Your task to perform on an android device: Go to settings Image 0: 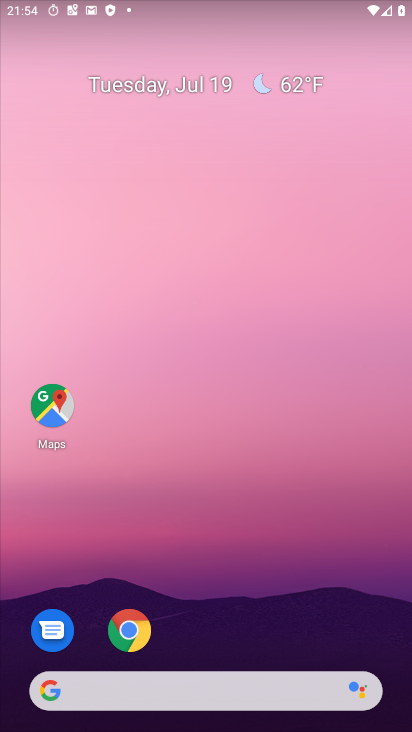
Step 0: drag from (22, 690) to (311, 11)
Your task to perform on an android device: Go to settings Image 1: 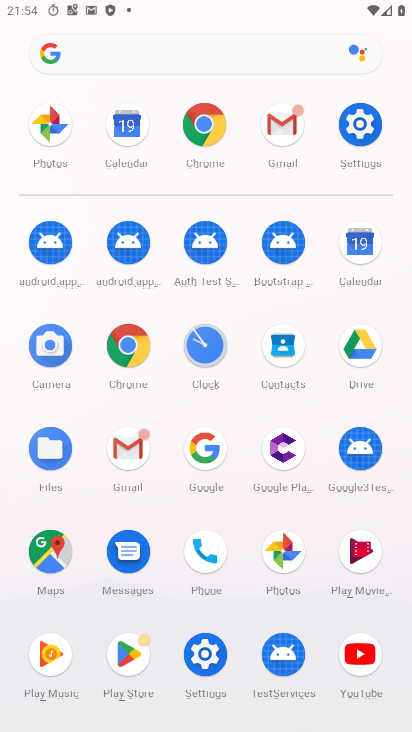
Step 1: click (207, 656)
Your task to perform on an android device: Go to settings Image 2: 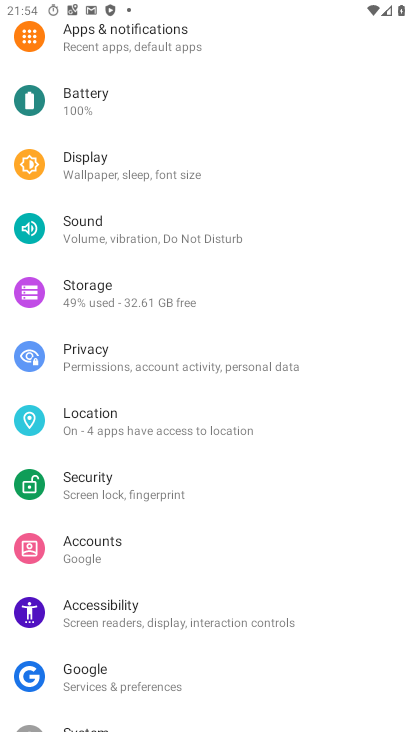
Step 2: task complete